Your task to perform on an android device: turn off picture-in-picture Image 0: 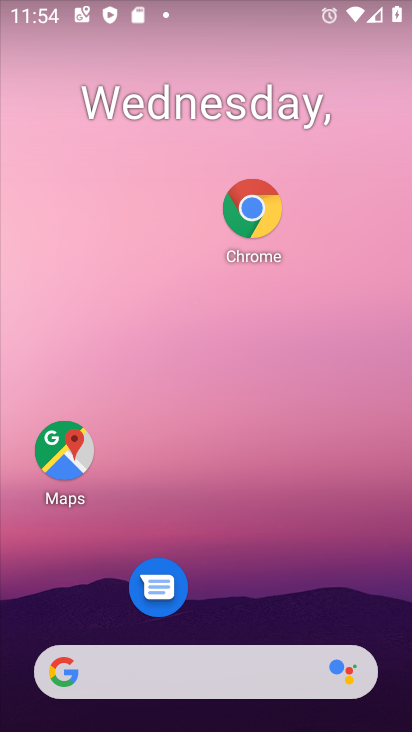
Step 0: drag from (244, 599) to (227, 48)
Your task to perform on an android device: turn off picture-in-picture Image 1: 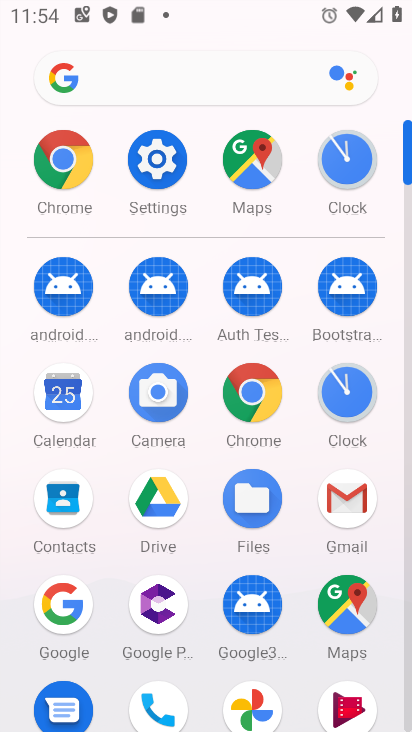
Step 1: click (152, 167)
Your task to perform on an android device: turn off picture-in-picture Image 2: 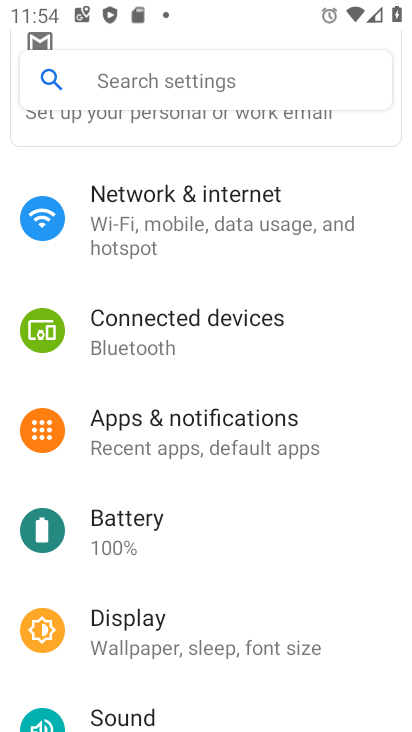
Step 2: click (185, 460)
Your task to perform on an android device: turn off picture-in-picture Image 3: 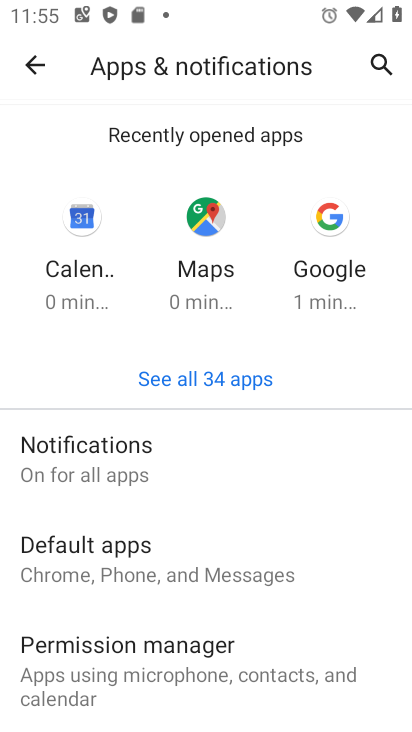
Step 3: drag from (156, 620) to (203, 242)
Your task to perform on an android device: turn off picture-in-picture Image 4: 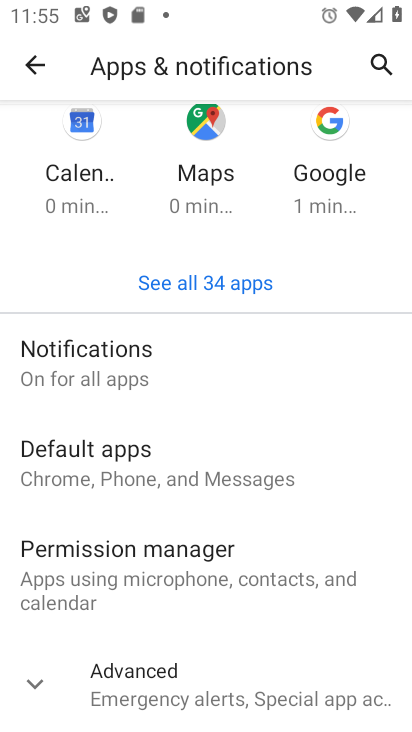
Step 4: click (153, 680)
Your task to perform on an android device: turn off picture-in-picture Image 5: 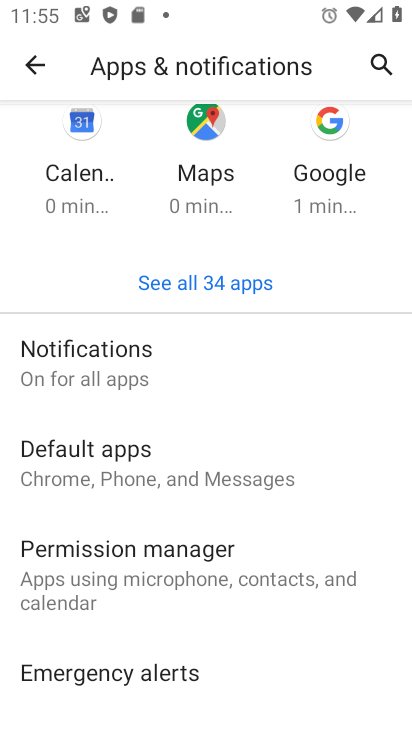
Step 5: drag from (255, 644) to (262, 222)
Your task to perform on an android device: turn off picture-in-picture Image 6: 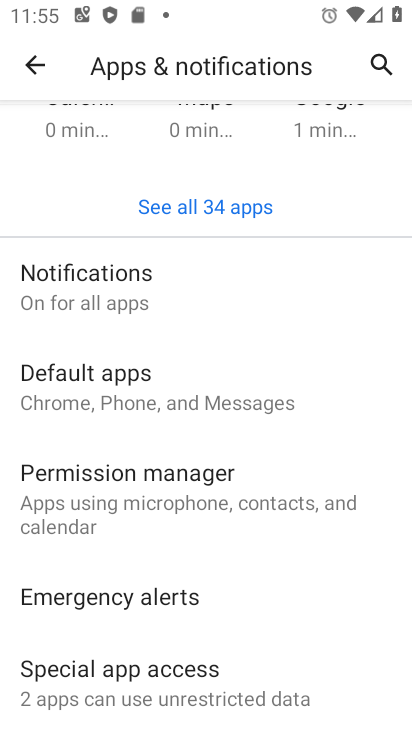
Step 6: click (147, 694)
Your task to perform on an android device: turn off picture-in-picture Image 7: 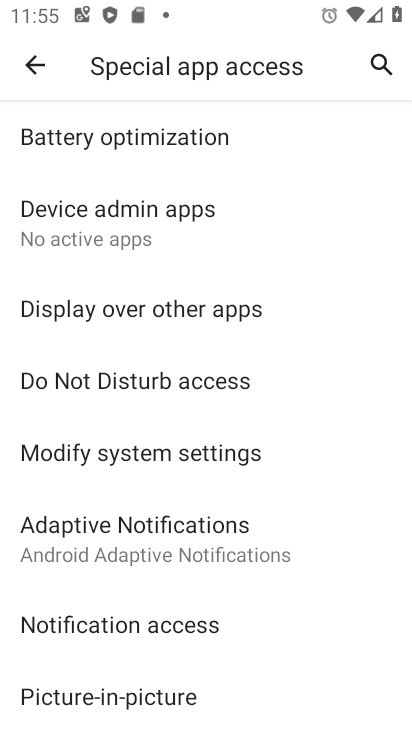
Step 7: drag from (220, 665) to (256, 214)
Your task to perform on an android device: turn off picture-in-picture Image 8: 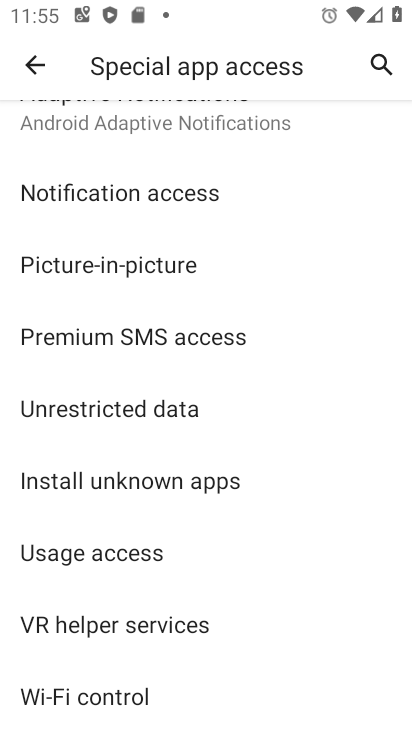
Step 8: click (180, 265)
Your task to perform on an android device: turn off picture-in-picture Image 9: 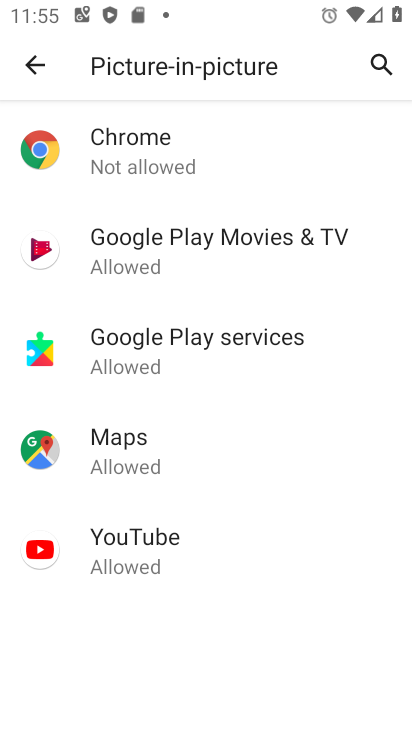
Step 9: click (136, 166)
Your task to perform on an android device: turn off picture-in-picture Image 10: 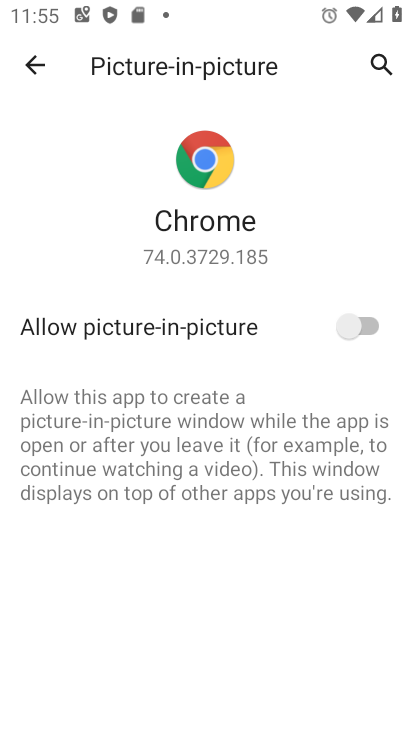
Step 10: click (378, 334)
Your task to perform on an android device: turn off picture-in-picture Image 11: 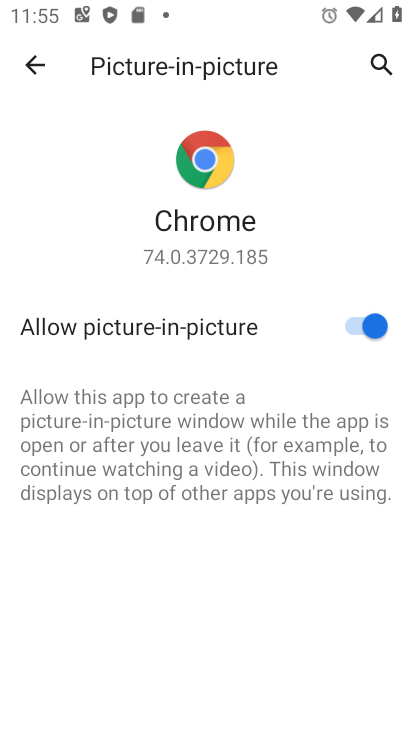
Step 11: task complete